Your task to perform on an android device: check android version Image 0: 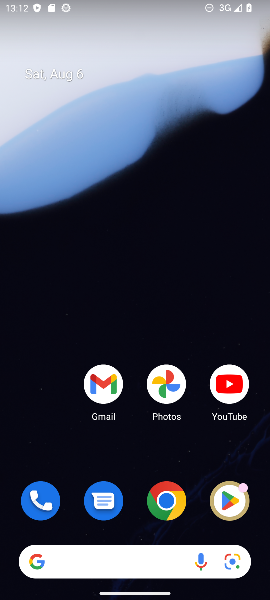
Step 0: drag from (122, 449) to (138, 99)
Your task to perform on an android device: check android version Image 1: 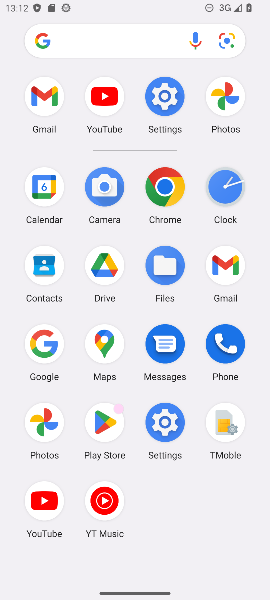
Step 1: click (159, 421)
Your task to perform on an android device: check android version Image 2: 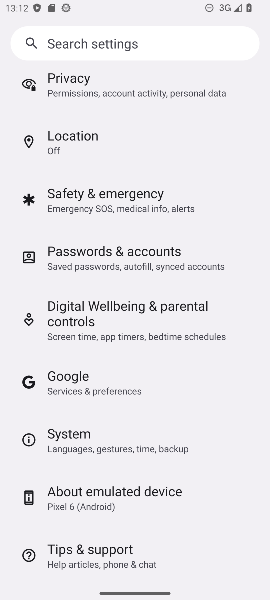
Step 2: click (121, 496)
Your task to perform on an android device: check android version Image 3: 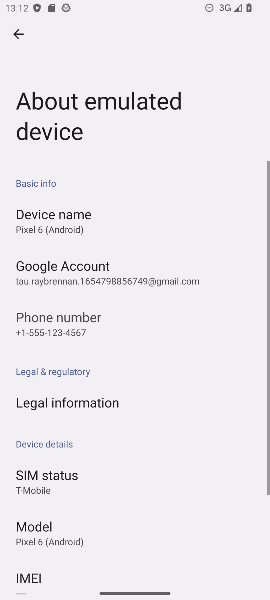
Step 3: task complete